Your task to perform on an android device: change text size in settings app Image 0: 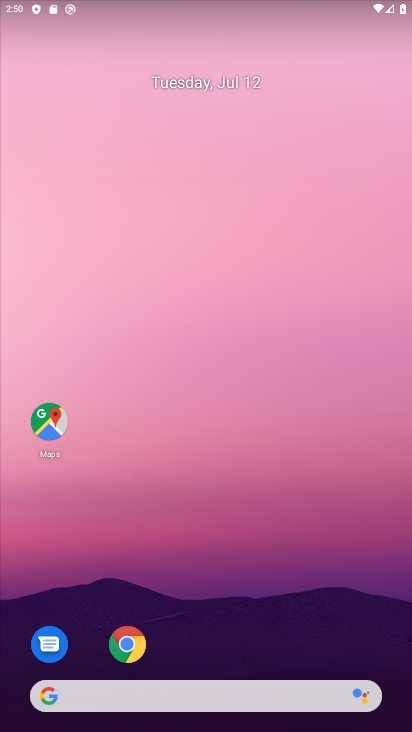
Step 0: drag from (238, 576) to (212, 24)
Your task to perform on an android device: change text size in settings app Image 1: 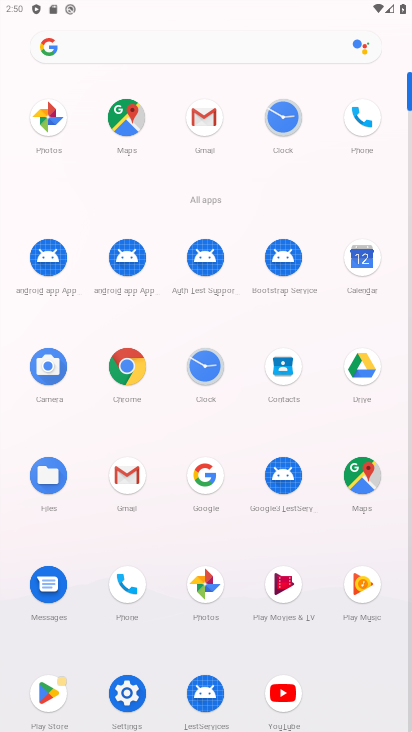
Step 1: click (128, 686)
Your task to perform on an android device: change text size in settings app Image 2: 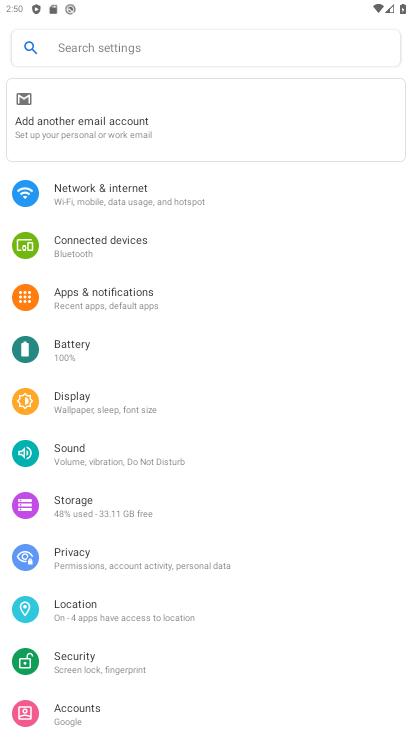
Step 2: click (107, 404)
Your task to perform on an android device: change text size in settings app Image 3: 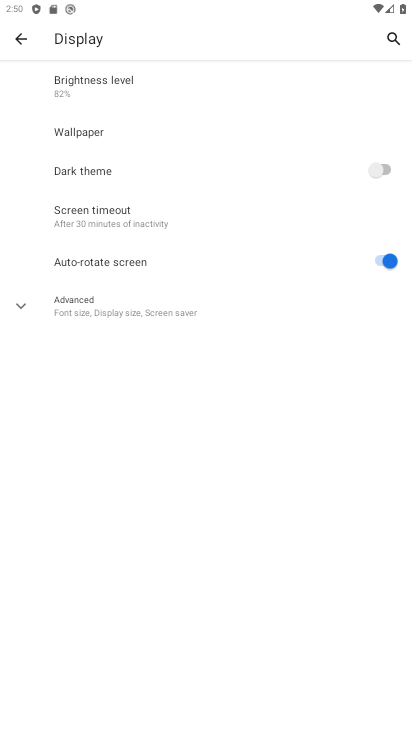
Step 3: click (149, 317)
Your task to perform on an android device: change text size in settings app Image 4: 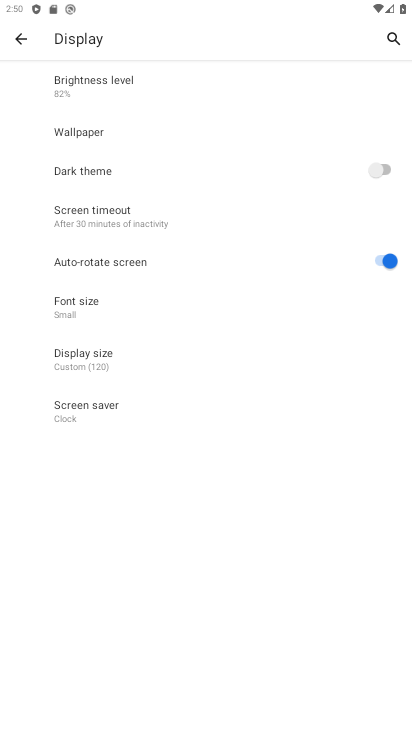
Step 4: click (120, 313)
Your task to perform on an android device: change text size in settings app Image 5: 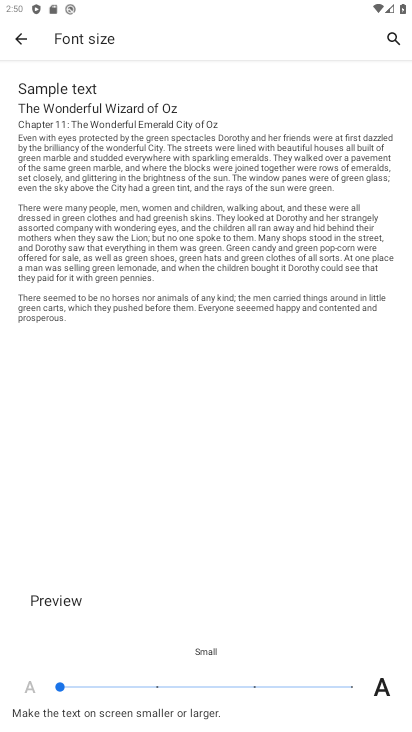
Step 5: click (161, 686)
Your task to perform on an android device: change text size in settings app Image 6: 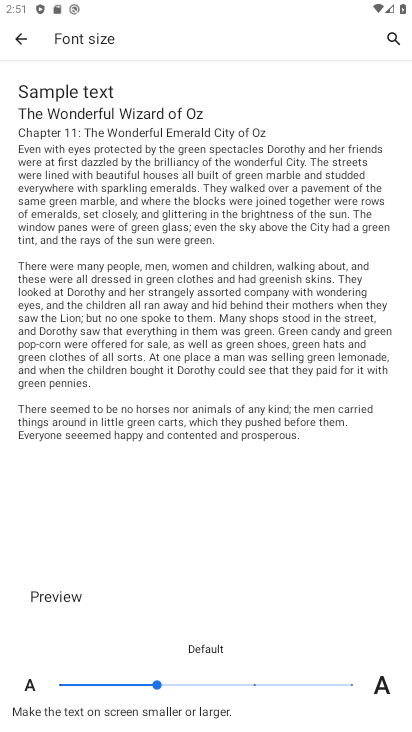
Step 6: task complete